Your task to perform on an android device: Check the weather Image 0: 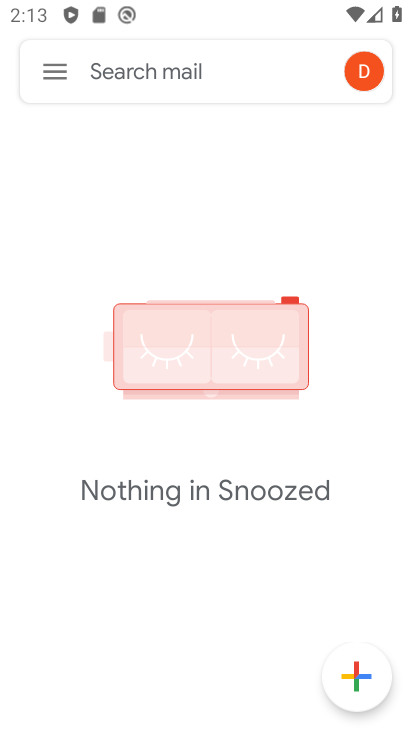
Step 0: press home button
Your task to perform on an android device: Check the weather Image 1: 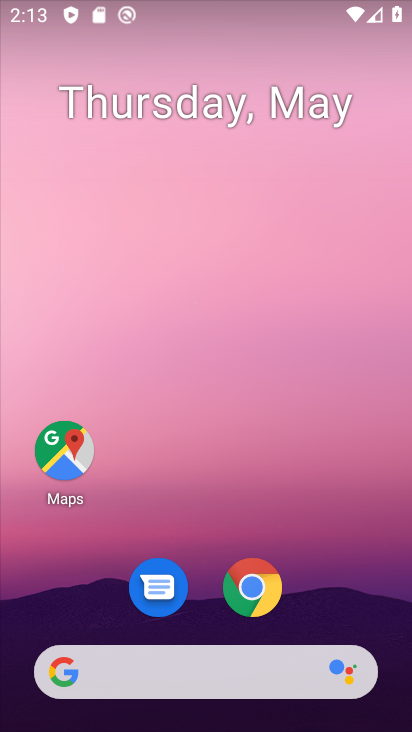
Step 1: drag from (322, 555) to (371, 98)
Your task to perform on an android device: Check the weather Image 2: 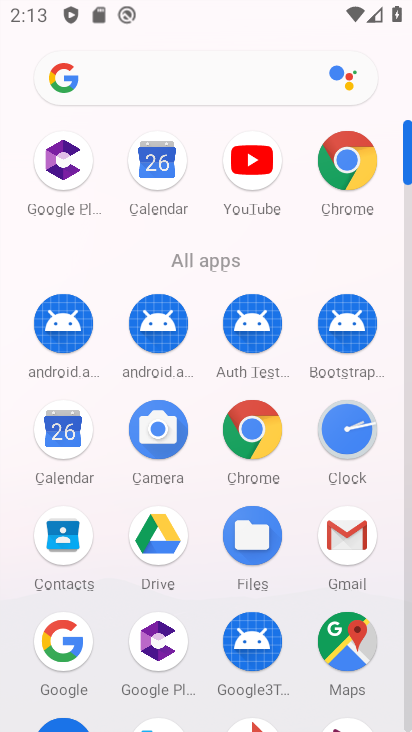
Step 2: click (354, 158)
Your task to perform on an android device: Check the weather Image 3: 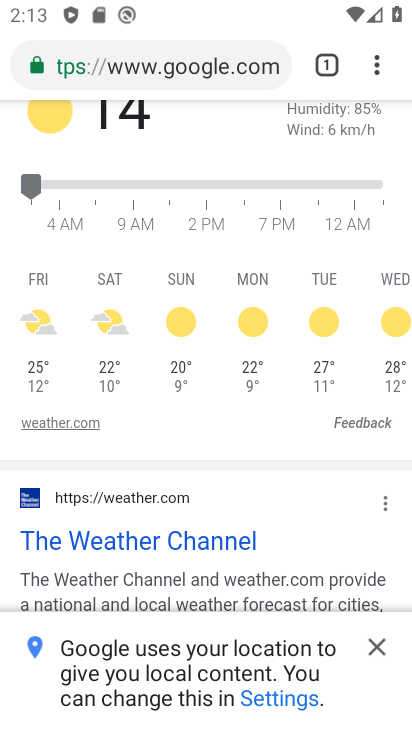
Step 3: drag from (279, 199) to (270, 370)
Your task to perform on an android device: Check the weather Image 4: 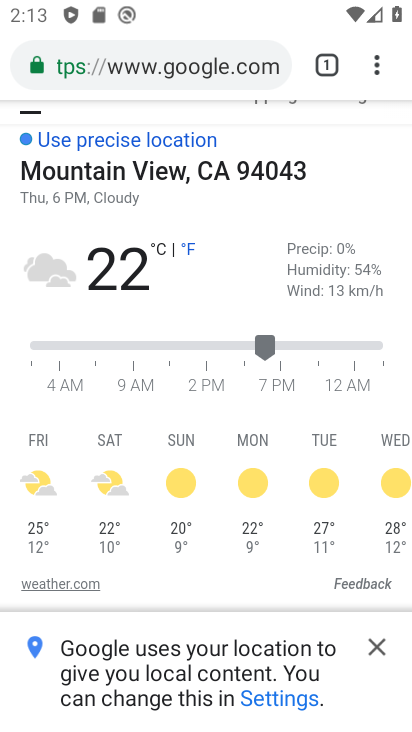
Step 4: drag from (92, 458) to (405, 422)
Your task to perform on an android device: Check the weather Image 5: 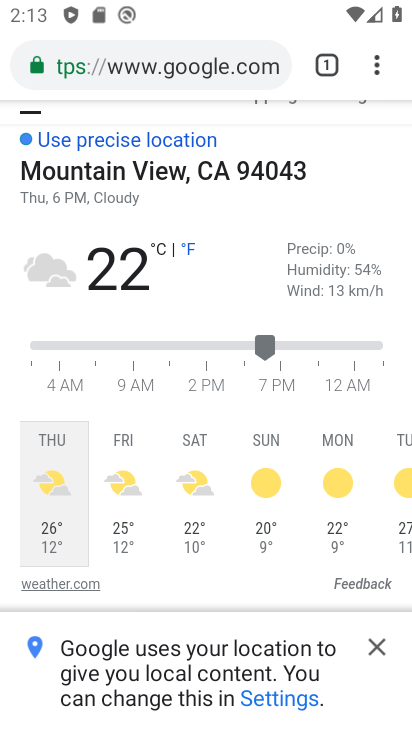
Step 5: click (142, 348)
Your task to perform on an android device: Check the weather Image 6: 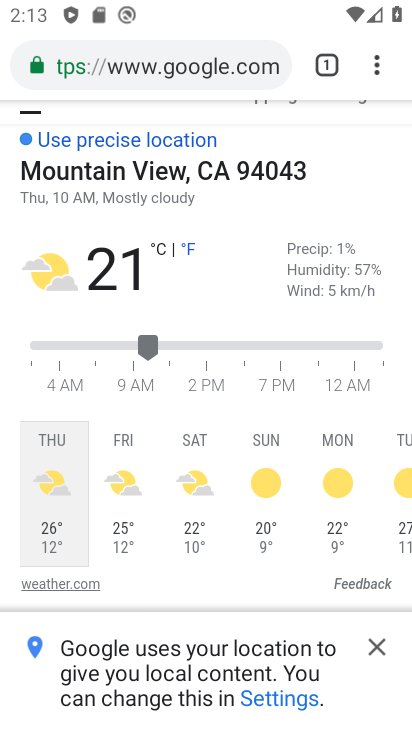
Step 6: click (281, 333)
Your task to perform on an android device: Check the weather Image 7: 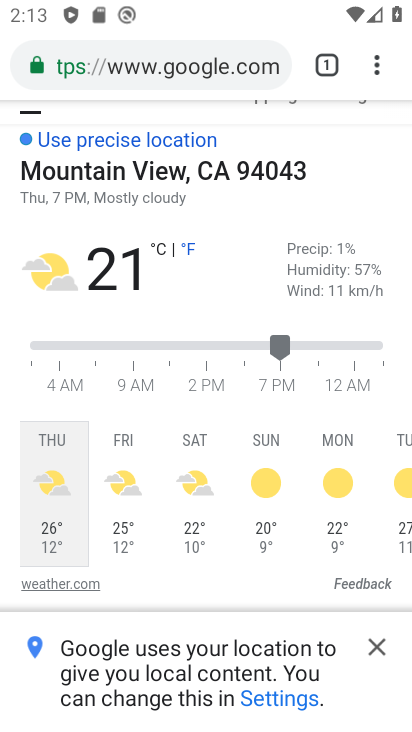
Step 7: click (243, 347)
Your task to perform on an android device: Check the weather Image 8: 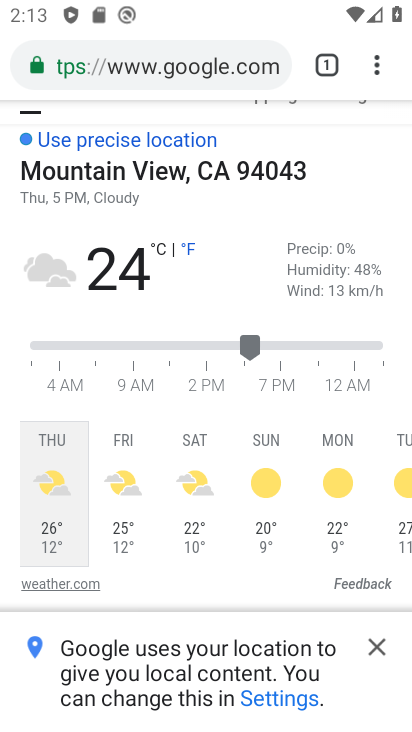
Step 8: task complete